Your task to perform on an android device: Turn off the flashlight Image 0: 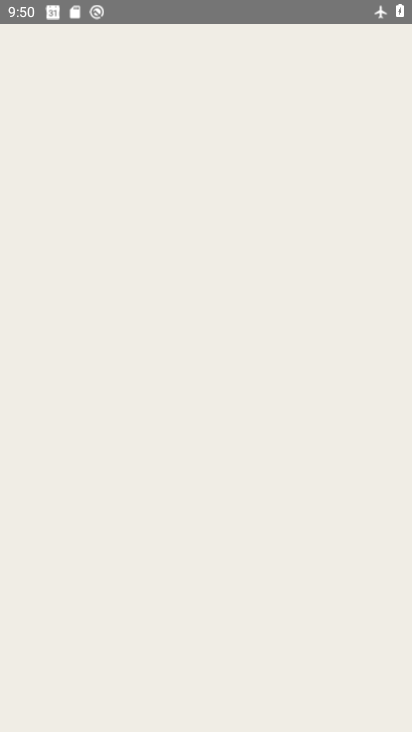
Step 0: drag from (199, 485) to (209, 6)
Your task to perform on an android device: Turn off the flashlight Image 1: 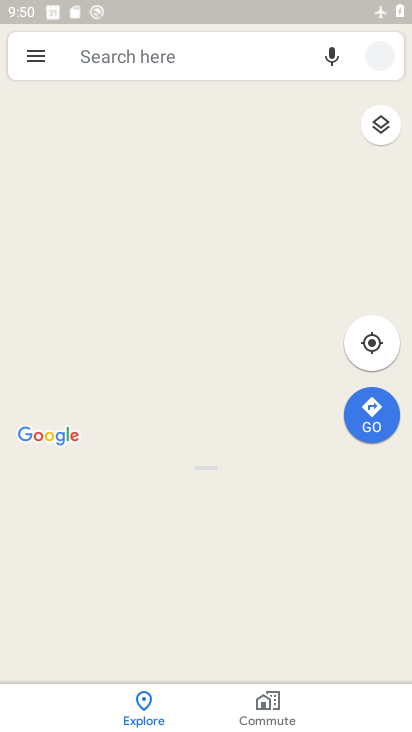
Step 1: drag from (229, 600) to (232, 225)
Your task to perform on an android device: Turn off the flashlight Image 2: 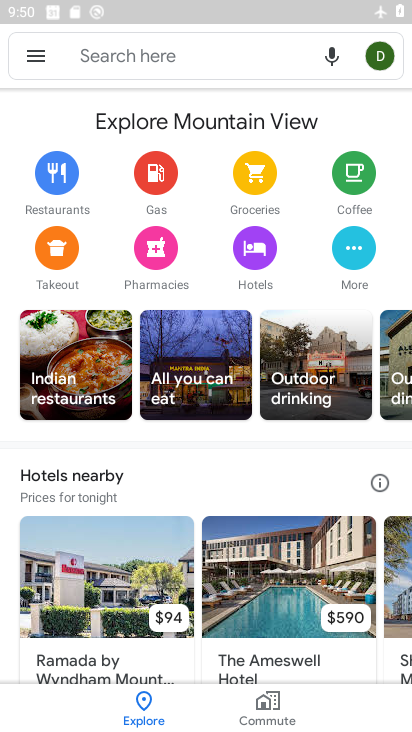
Step 2: drag from (226, 600) to (259, 219)
Your task to perform on an android device: Turn off the flashlight Image 3: 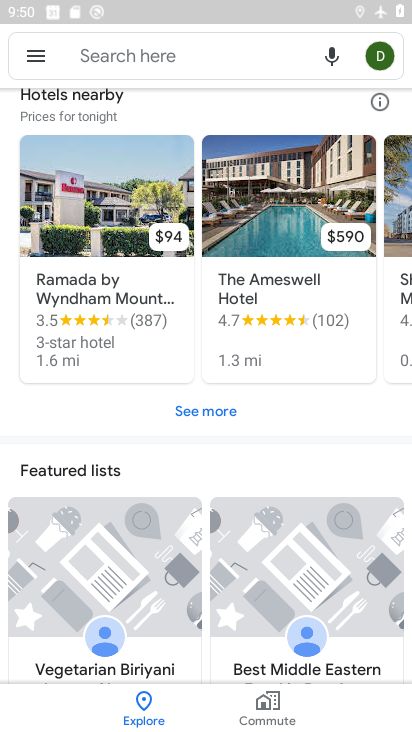
Step 3: drag from (278, 459) to (263, 301)
Your task to perform on an android device: Turn off the flashlight Image 4: 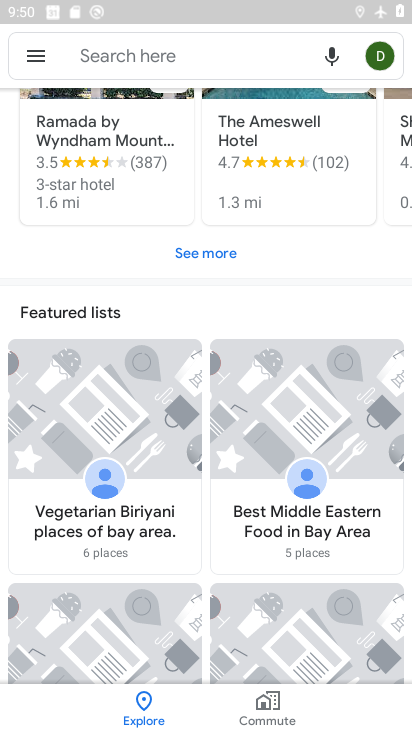
Step 4: press home button
Your task to perform on an android device: Turn off the flashlight Image 5: 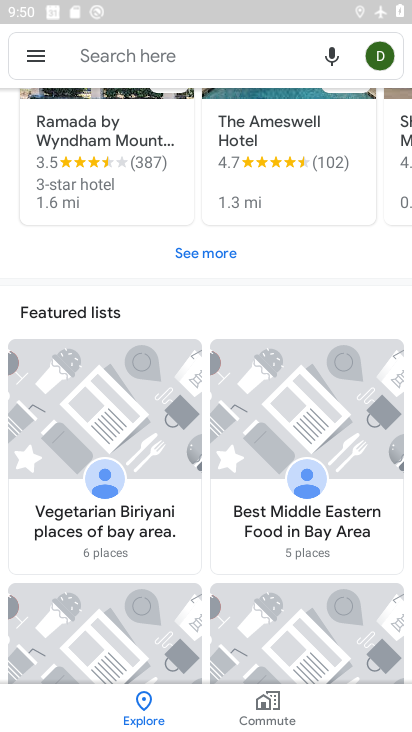
Step 5: press home button
Your task to perform on an android device: Turn off the flashlight Image 6: 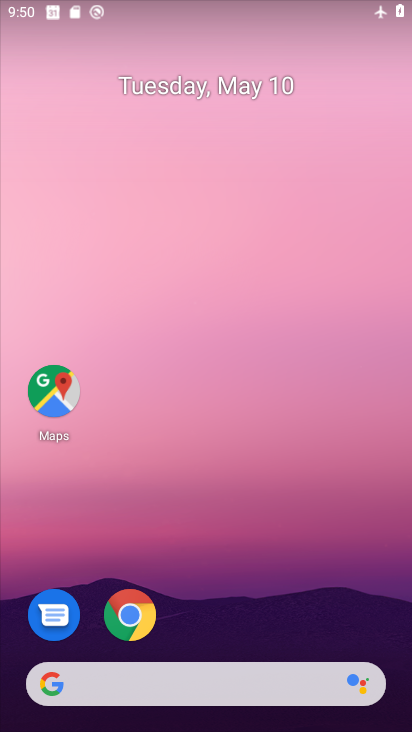
Step 6: drag from (222, 500) to (240, 216)
Your task to perform on an android device: Turn off the flashlight Image 7: 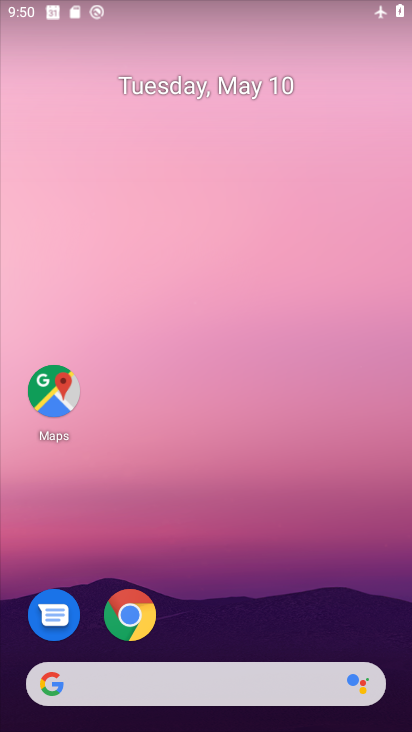
Step 7: drag from (194, 587) to (235, 194)
Your task to perform on an android device: Turn off the flashlight Image 8: 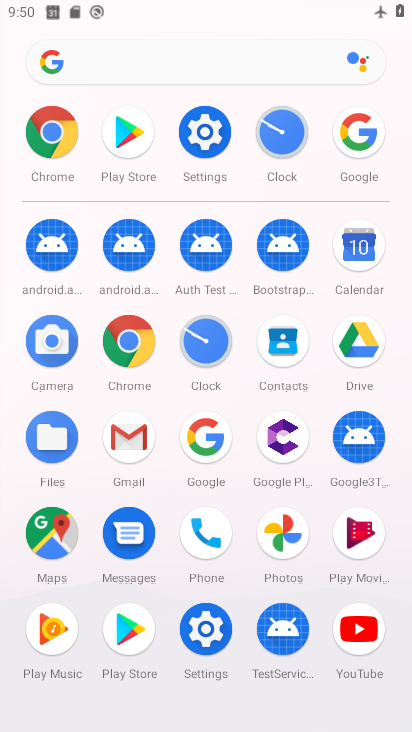
Step 8: click (196, 129)
Your task to perform on an android device: Turn off the flashlight Image 9: 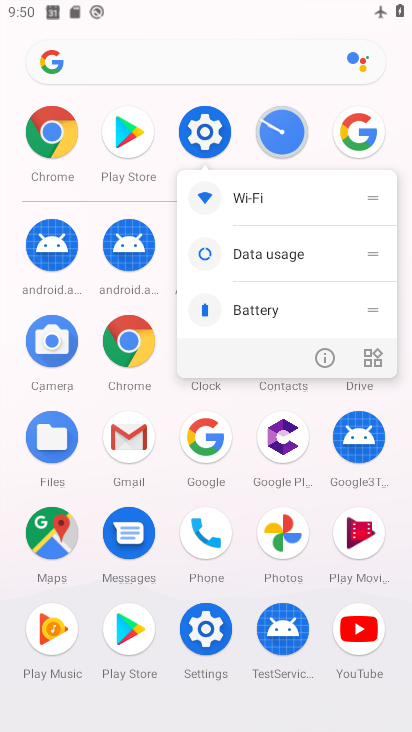
Step 9: click (330, 353)
Your task to perform on an android device: Turn off the flashlight Image 10: 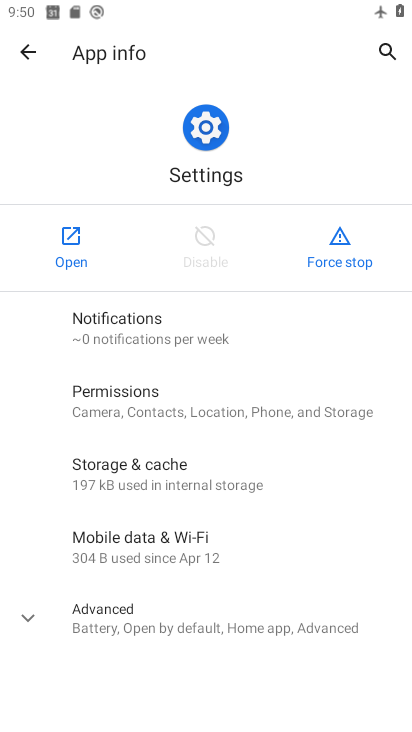
Step 10: click (72, 248)
Your task to perform on an android device: Turn off the flashlight Image 11: 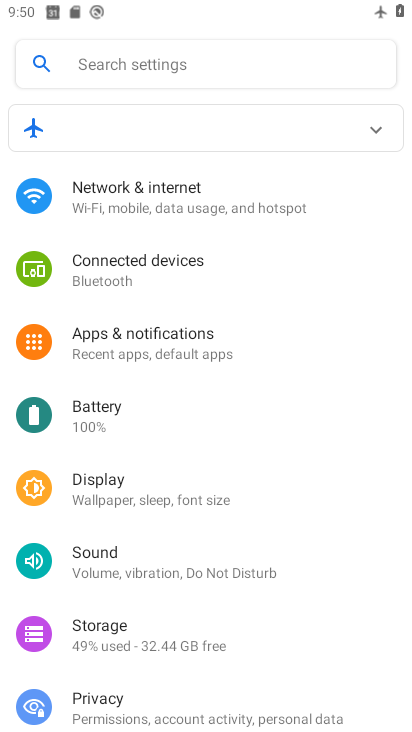
Step 11: click (138, 66)
Your task to perform on an android device: Turn off the flashlight Image 12: 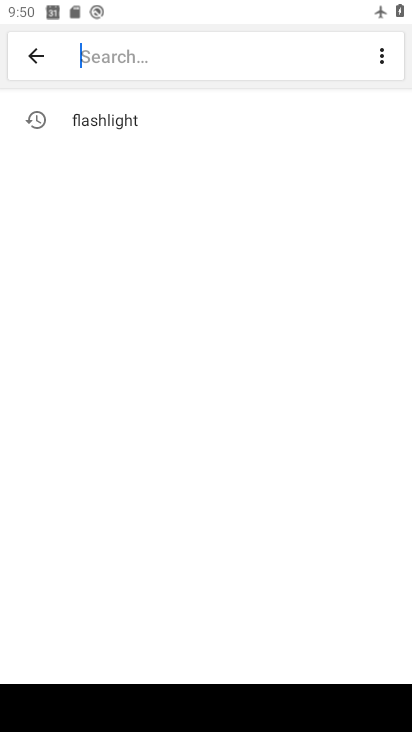
Step 12: click (116, 134)
Your task to perform on an android device: Turn off the flashlight Image 13: 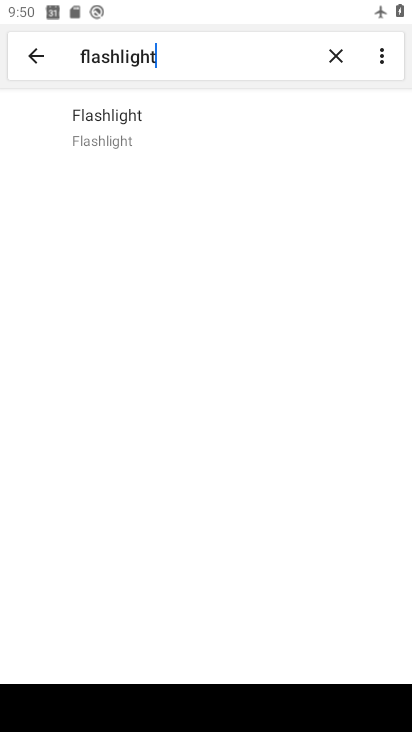
Step 13: task complete